Your task to perform on an android device: Open the clock app Image 0: 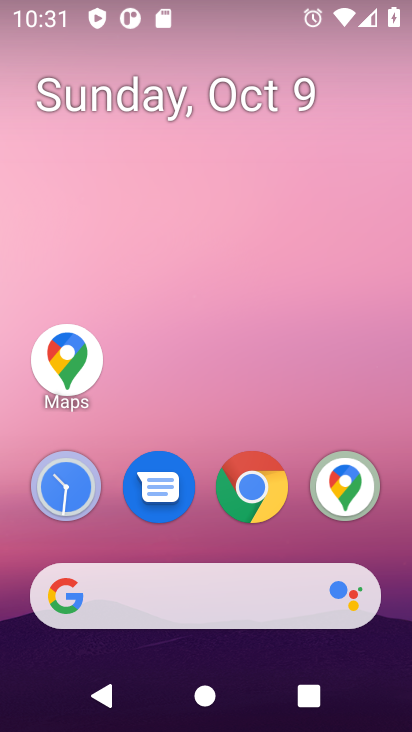
Step 0: press home button
Your task to perform on an android device: Open the clock app Image 1: 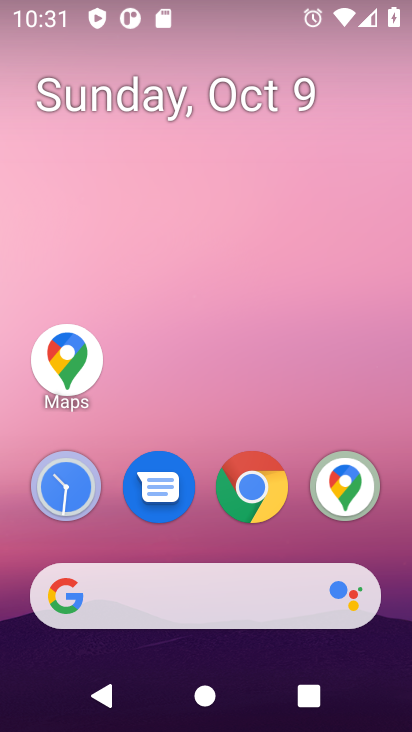
Step 1: drag from (215, 518) to (225, 43)
Your task to perform on an android device: Open the clock app Image 2: 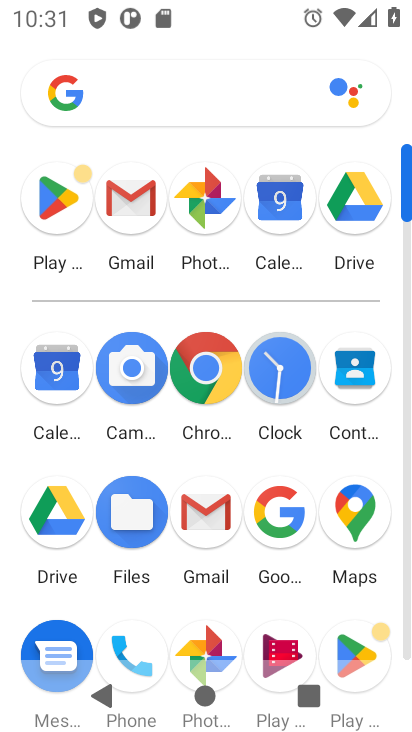
Step 2: click (275, 365)
Your task to perform on an android device: Open the clock app Image 3: 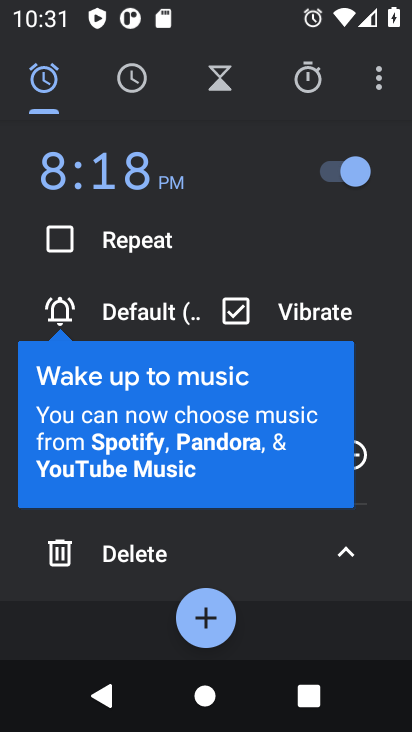
Step 3: task complete